Your task to perform on an android device: turn off location history Image 0: 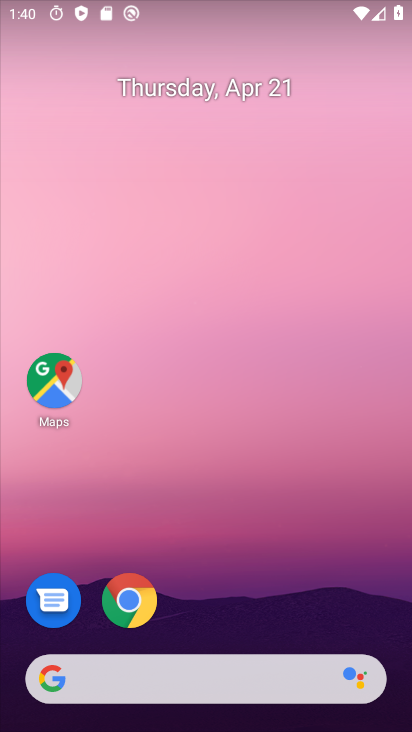
Step 0: drag from (236, 554) to (291, 78)
Your task to perform on an android device: turn off location history Image 1: 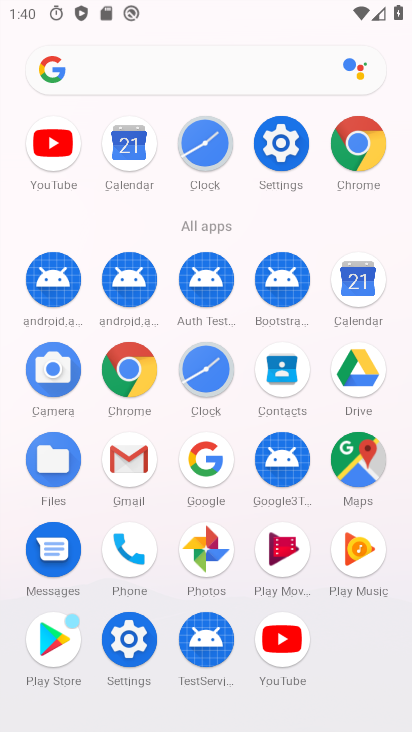
Step 1: click (270, 154)
Your task to perform on an android device: turn off location history Image 2: 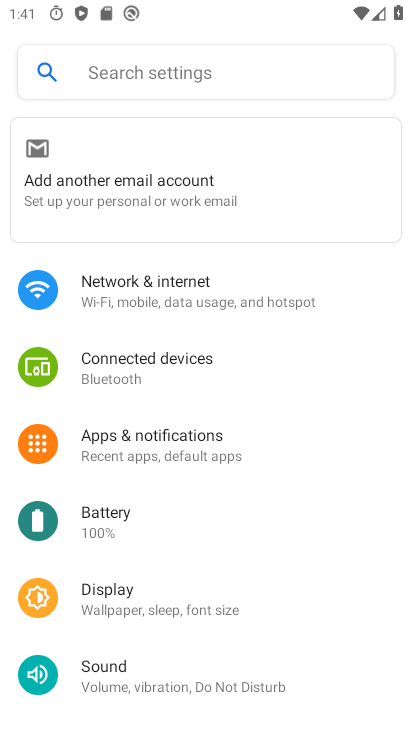
Step 2: drag from (138, 647) to (253, 145)
Your task to perform on an android device: turn off location history Image 3: 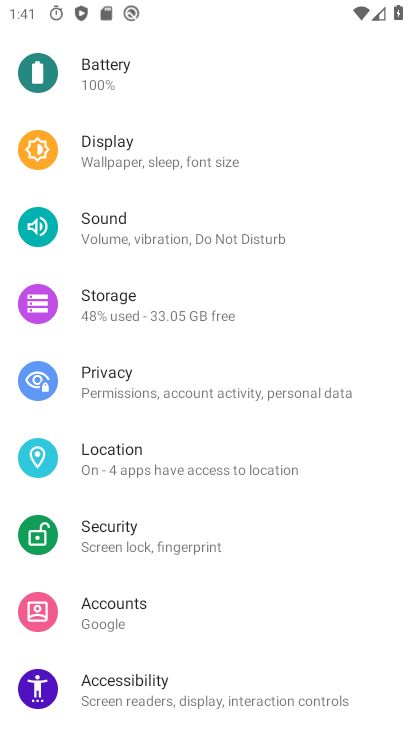
Step 3: click (115, 455)
Your task to perform on an android device: turn off location history Image 4: 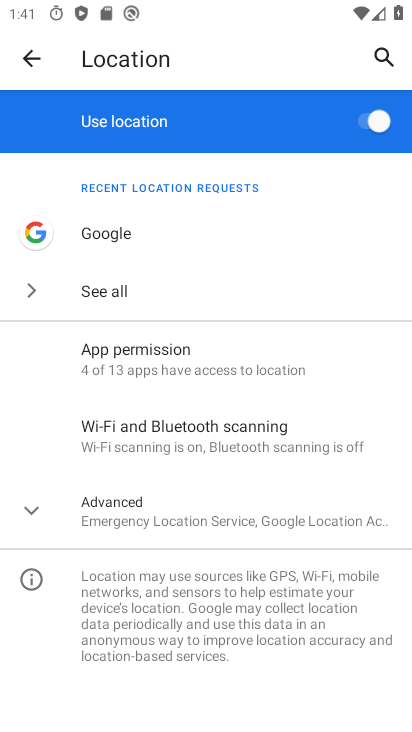
Step 4: click (169, 514)
Your task to perform on an android device: turn off location history Image 5: 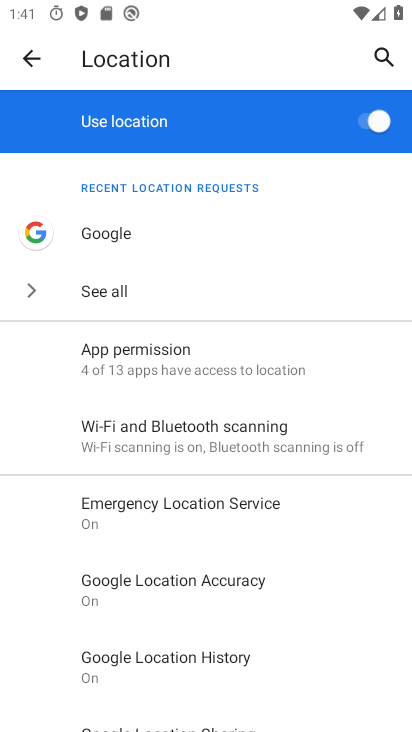
Step 5: click (168, 657)
Your task to perform on an android device: turn off location history Image 6: 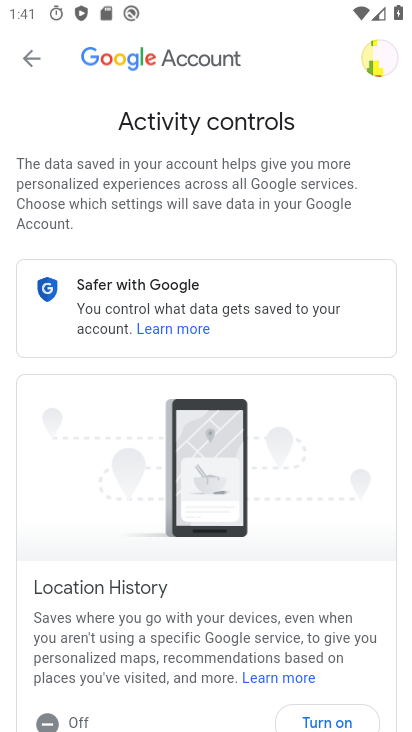
Step 6: task complete